Your task to perform on an android device: Go to Amazon Image 0: 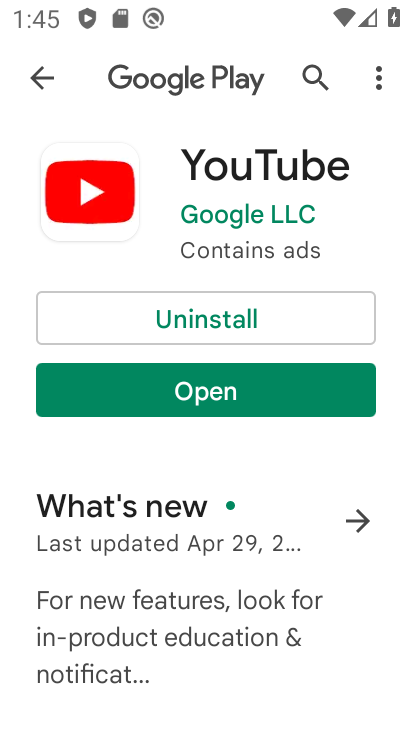
Step 0: press back button
Your task to perform on an android device: Go to Amazon Image 1: 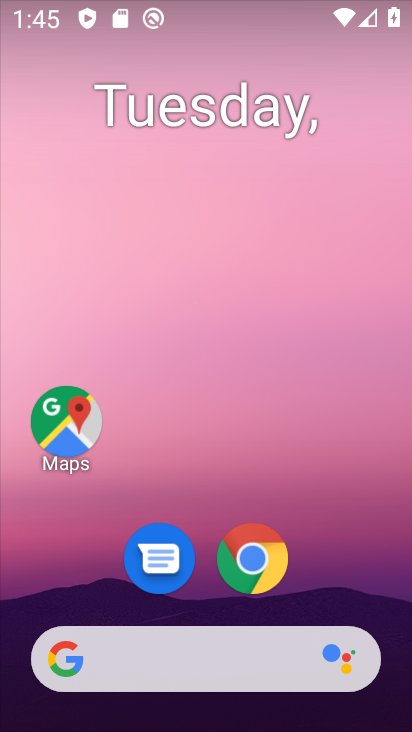
Step 1: click (247, 559)
Your task to perform on an android device: Go to Amazon Image 2: 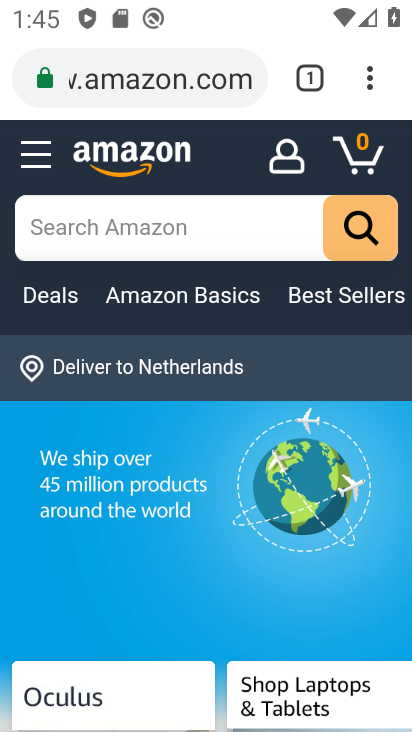
Step 2: task complete